Your task to perform on an android device: Go to network settings Image 0: 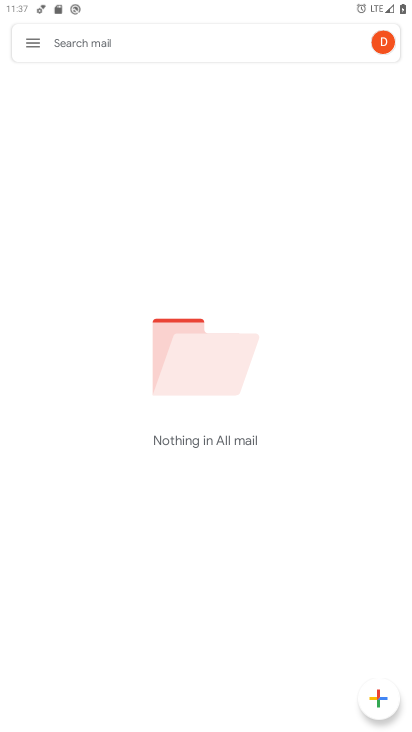
Step 0: press home button
Your task to perform on an android device: Go to network settings Image 1: 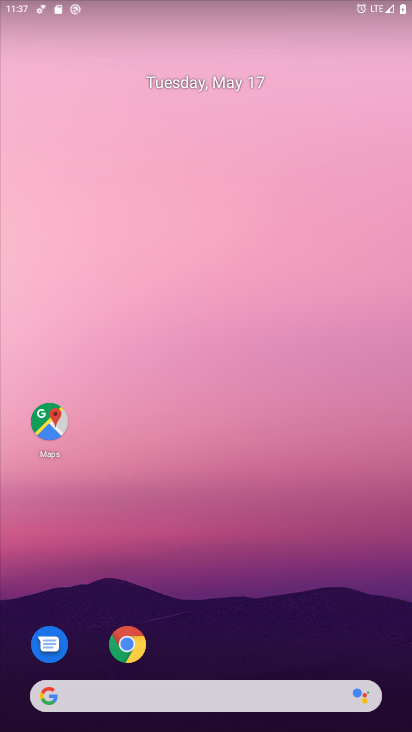
Step 1: drag from (226, 664) to (218, 37)
Your task to perform on an android device: Go to network settings Image 2: 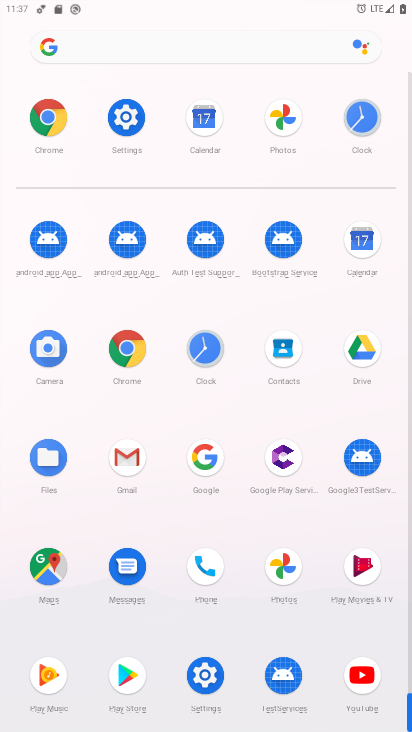
Step 2: click (126, 120)
Your task to perform on an android device: Go to network settings Image 3: 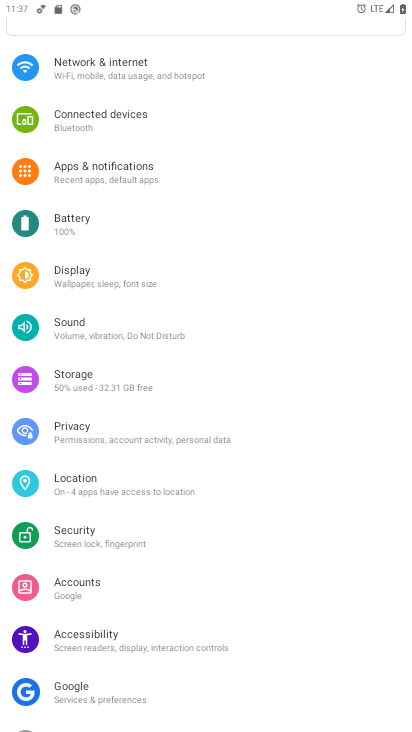
Step 3: click (154, 64)
Your task to perform on an android device: Go to network settings Image 4: 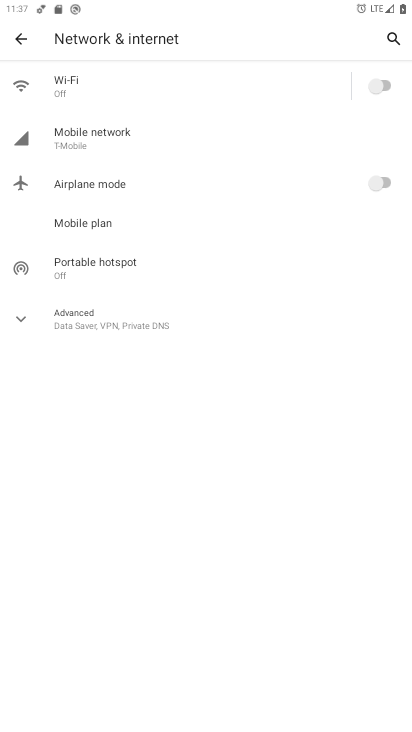
Step 4: click (24, 312)
Your task to perform on an android device: Go to network settings Image 5: 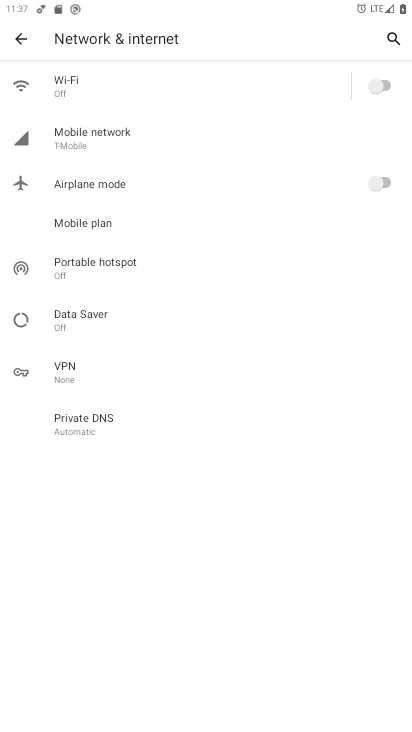
Step 5: task complete